Your task to perform on an android device: open chrome and create a bookmark for the current page Image 0: 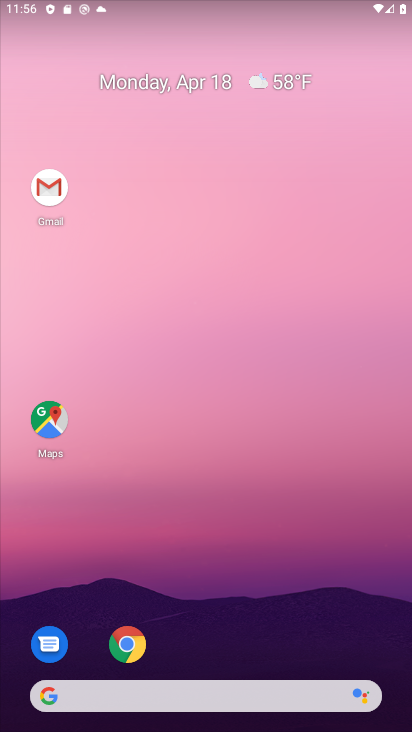
Step 0: click (134, 642)
Your task to perform on an android device: open chrome and create a bookmark for the current page Image 1: 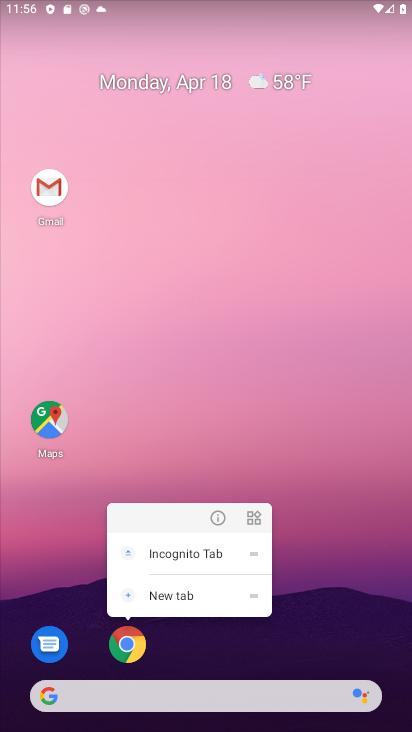
Step 1: click (135, 652)
Your task to perform on an android device: open chrome and create a bookmark for the current page Image 2: 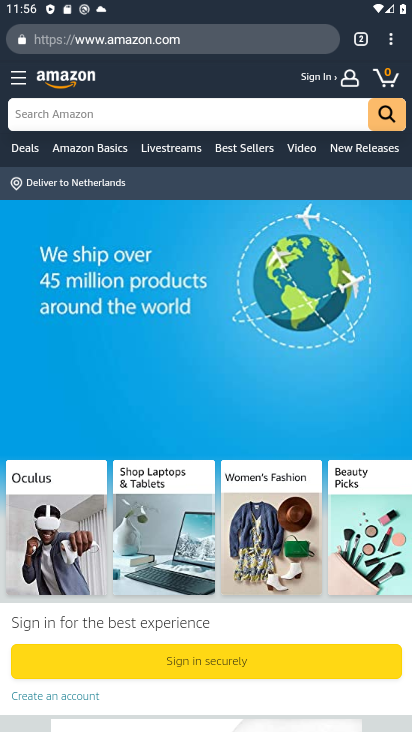
Step 2: click (392, 36)
Your task to perform on an android device: open chrome and create a bookmark for the current page Image 3: 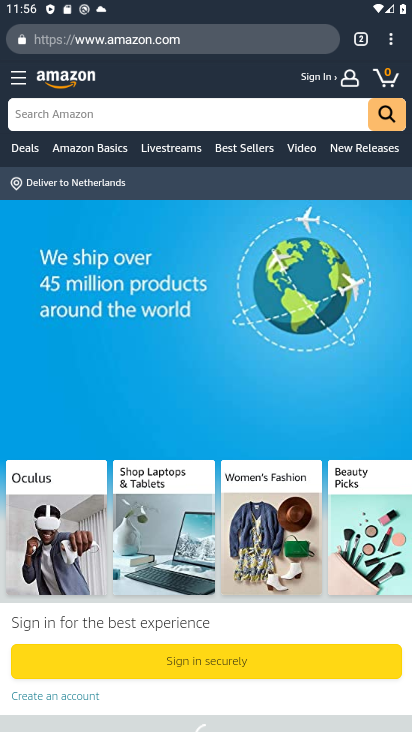
Step 3: click (388, 40)
Your task to perform on an android device: open chrome and create a bookmark for the current page Image 4: 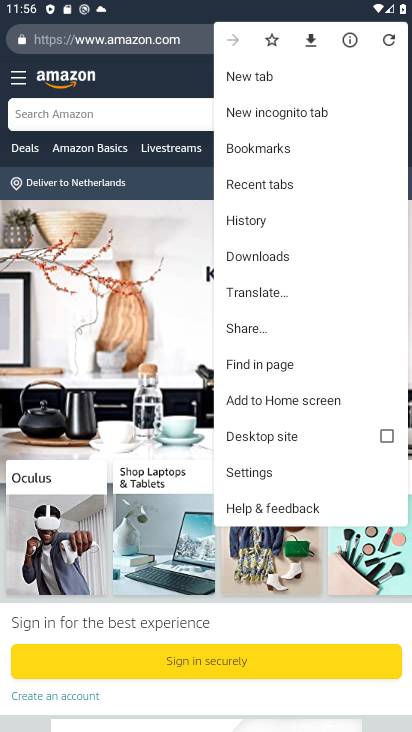
Step 4: click (276, 33)
Your task to perform on an android device: open chrome and create a bookmark for the current page Image 5: 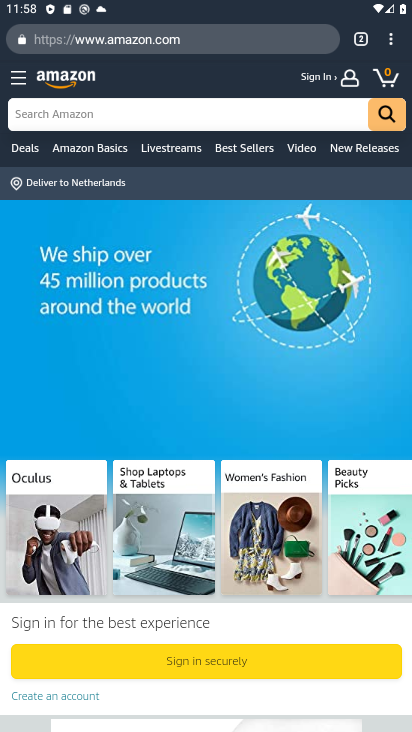
Step 5: task complete